Your task to perform on an android device: toggle data saver in the chrome app Image 0: 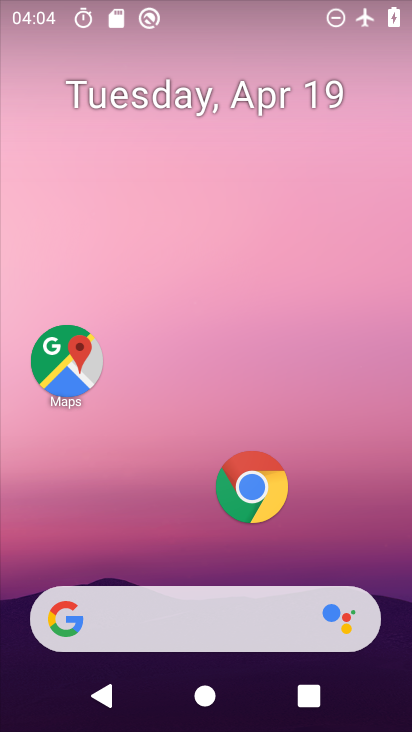
Step 0: click (235, 486)
Your task to perform on an android device: toggle data saver in the chrome app Image 1: 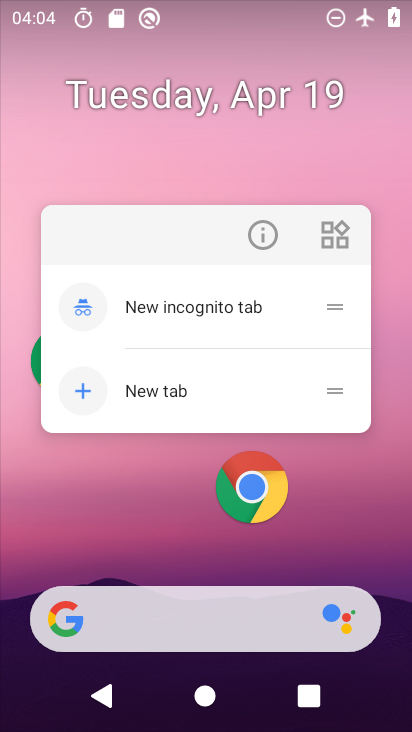
Step 1: click (247, 490)
Your task to perform on an android device: toggle data saver in the chrome app Image 2: 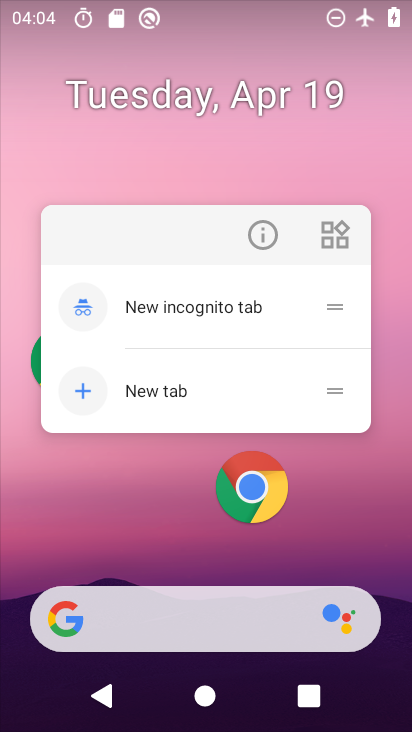
Step 2: click (268, 473)
Your task to perform on an android device: toggle data saver in the chrome app Image 3: 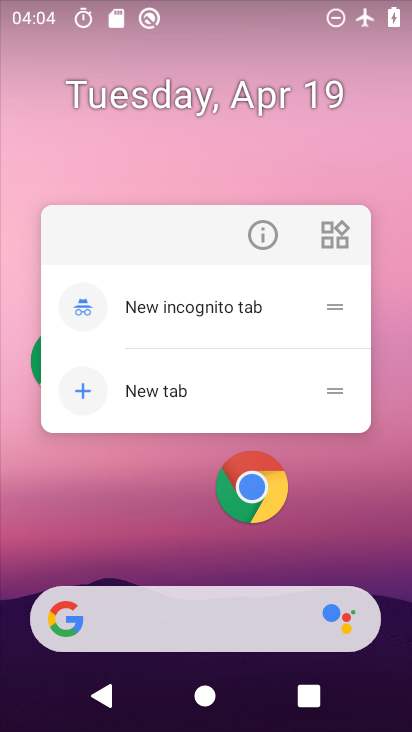
Step 3: click (256, 476)
Your task to perform on an android device: toggle data saver in the chrome app Image 4: 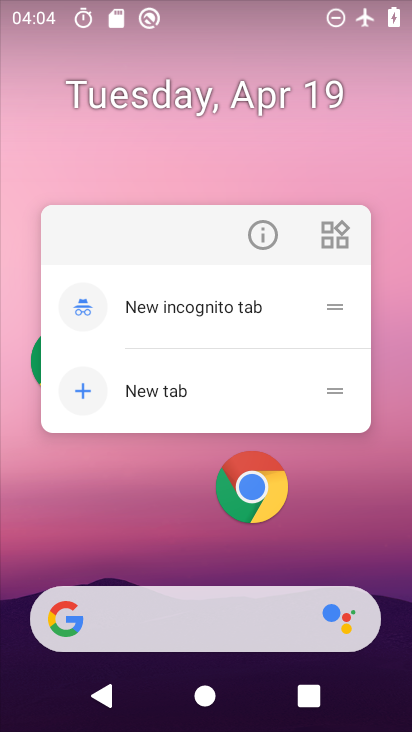
Step 4: click (259, 497)
Your task to perform on an android device: toggle data saver in the chrome app Image 5: 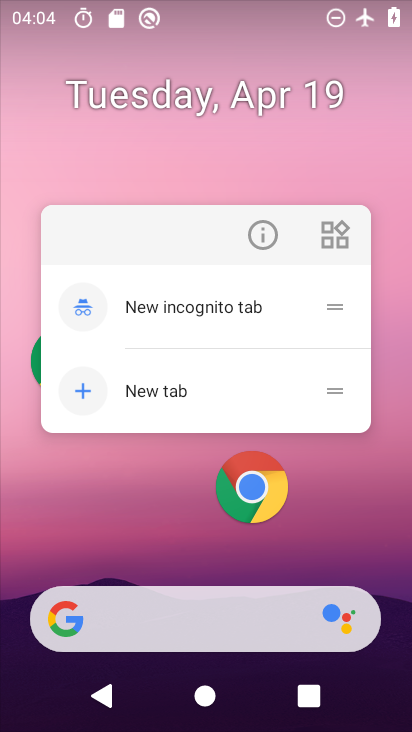
Step 5: click (246, 475)
Your task to perform on an android device: toggle data saver in the chrome app Image 6: 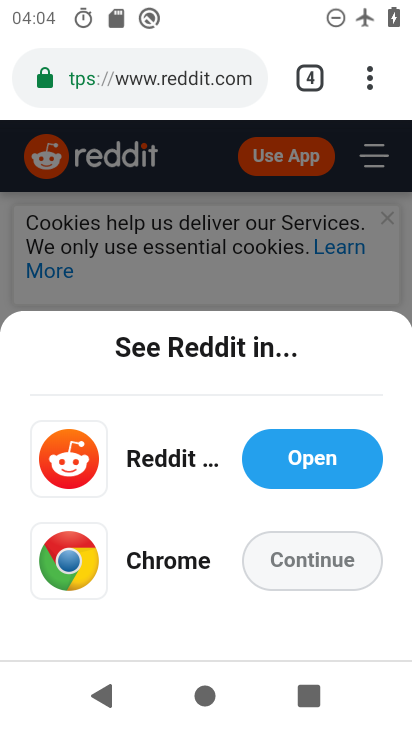
Step 6: drag from (366, 82) to (132, 546)
Your task to perform on an android device: toggle data saver in the chrome app Image 7: 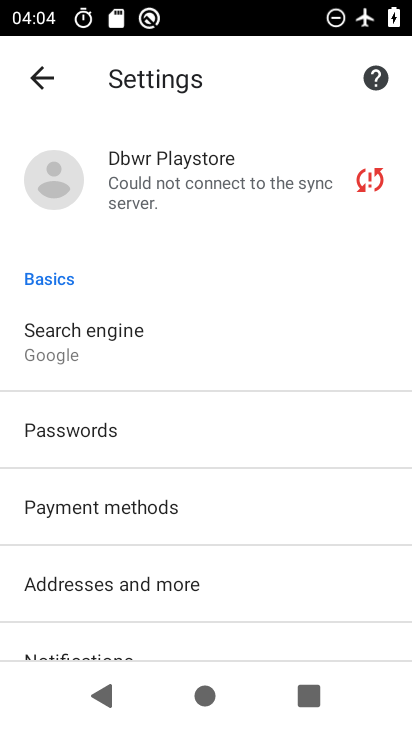
Step 7: drag from (154, 586) to (235, 290)
Your task to perform on an android device: toggle data saver in the chrome app Image 8: 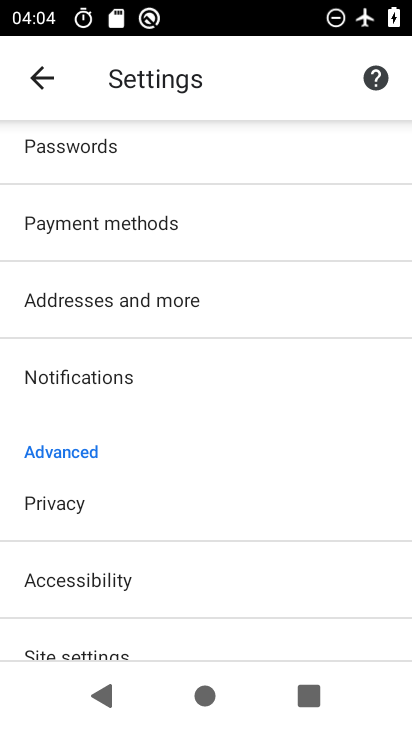
Step 8: drag from (125, 610) to (257, 213)
Your task to perform on an android device: toggle data saver in the chrome app Image 9: 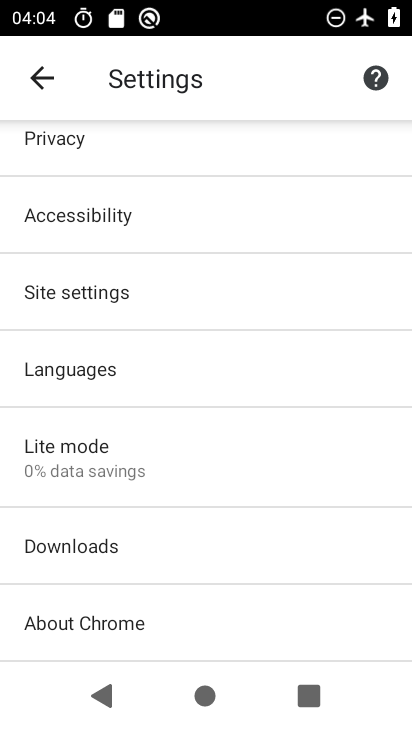
Step 9: click (63, 467)
Your task to perform on an android device: toggle data saver in the chrome app Image 10: 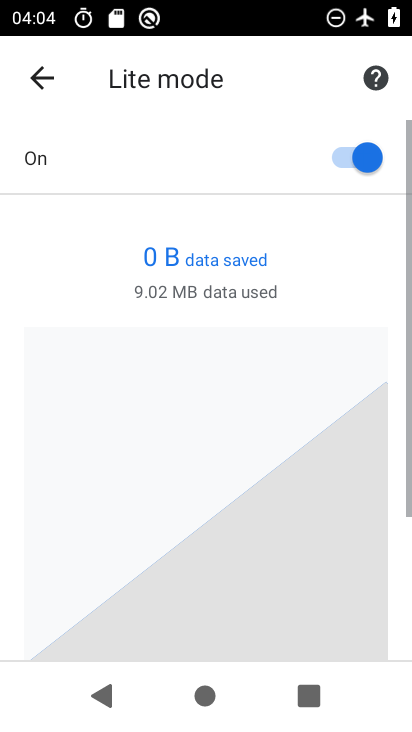
Step 10: click (369, 153)
Your task to perform on an android device: toggle data saver in the chrome app Image 11: 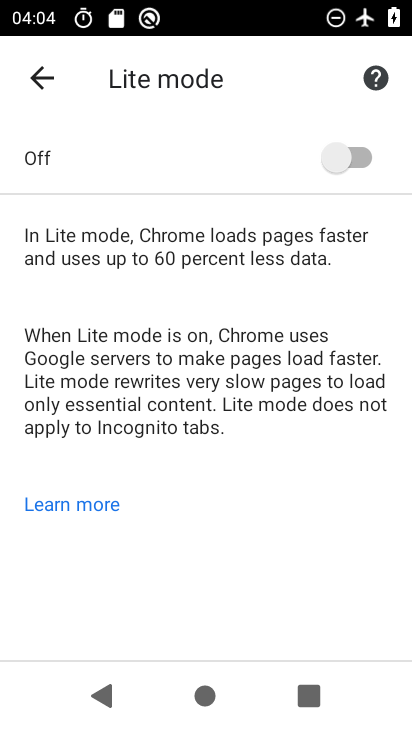
Step 11: task complete